Your task to perform on an android device: see tabs open on other devices in the chrome app Image 0: 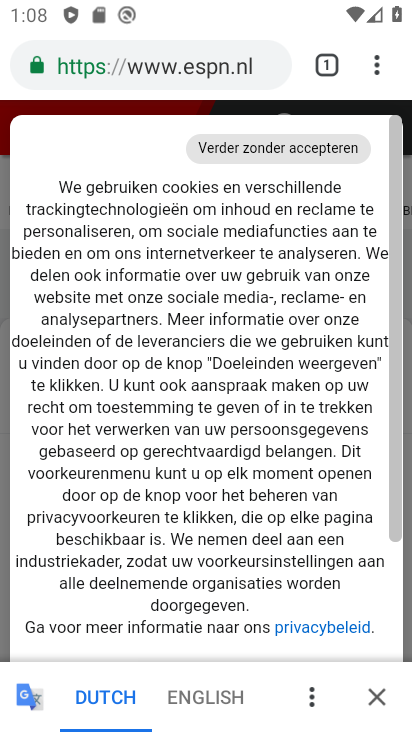
Step 0: press home button
Your task to perform on an android device: see tabs open on other devices in the chrome app Image 1: 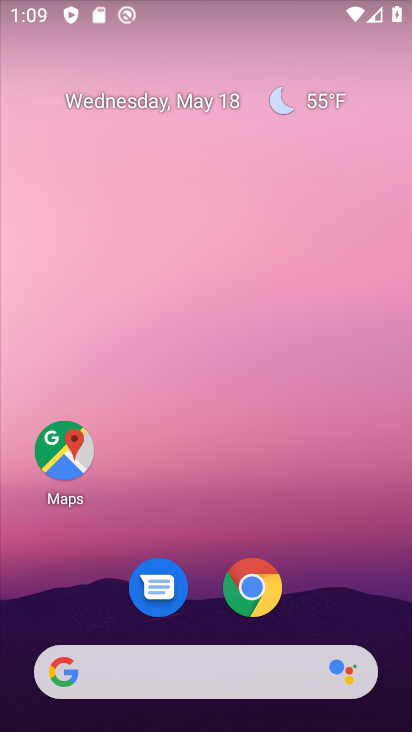
Step 1: drag from (161, 682) to (175, 250)
Your task to perform on an android device: see tabs open on other devices in the chrome app Image 2: 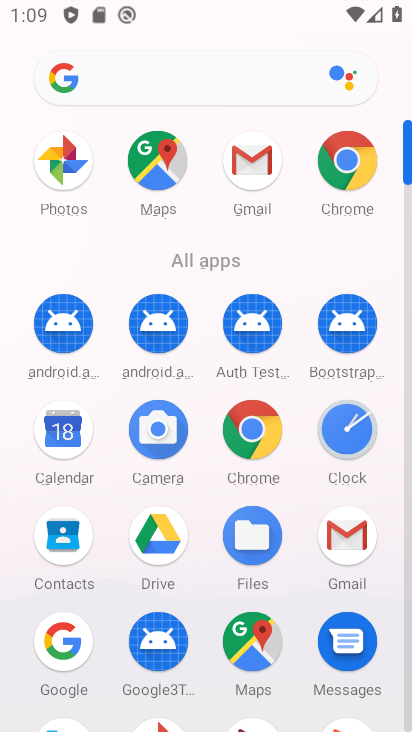
Step 2: click (339, 160)
Your task to perform on an android device: see tabs open on other devices in the chrome app Image 3: 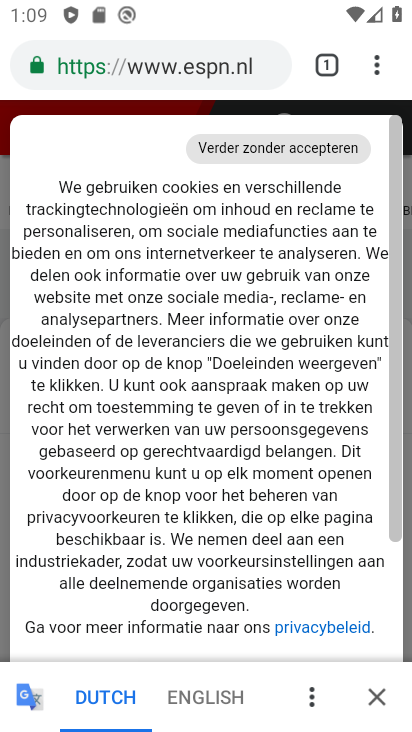
Step 3: task complete